Your task to perform on an android device: move a message to another label in the gmail app Image 0: 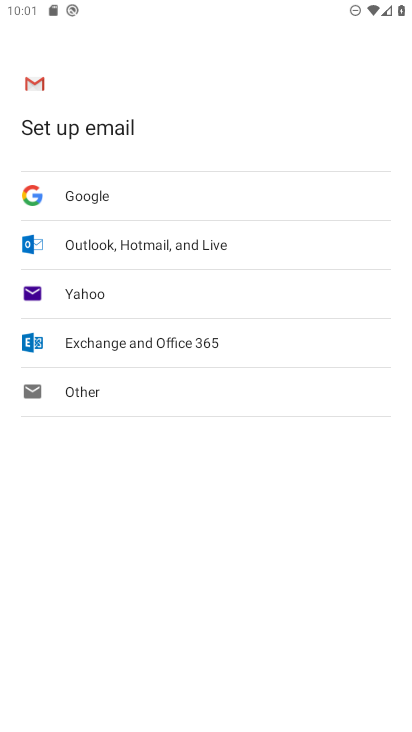
Step 0: press home button
Your task to perform on an android device: move a message to another label in the gmail app Image 1: 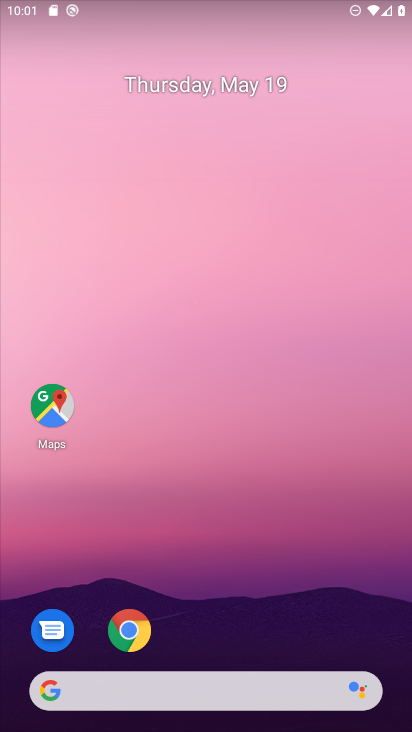
Step 1: drag from (365, 610) to (347, 124)
Your task to perform on an android device: move a message to another label in the gmail app Image 2: 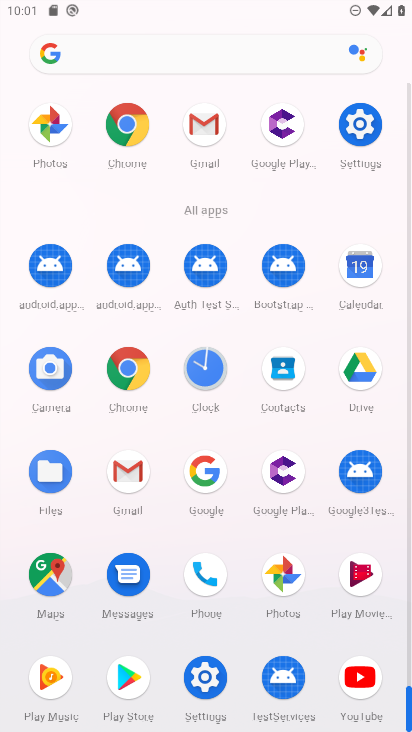
Step 2: click (128, 477)
Your task to perform on an android device: move a message to another label in the gmail app Image 3: 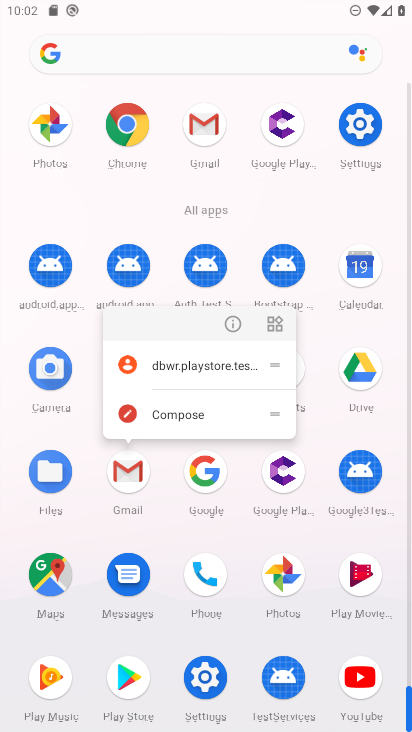
Step 3: click (138, 479)
Your task to perform on an android device: move a message to another label in the gmail app Image 4: 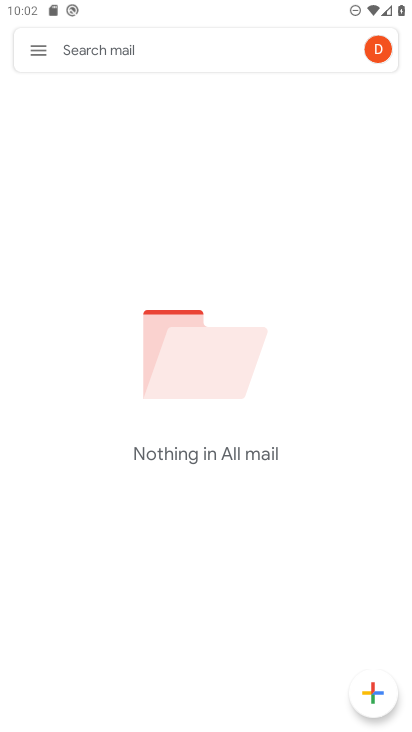
Step 4: click (44, 54)
Your task to perform on an android device: move a message to another label in the gmail app Image 5: 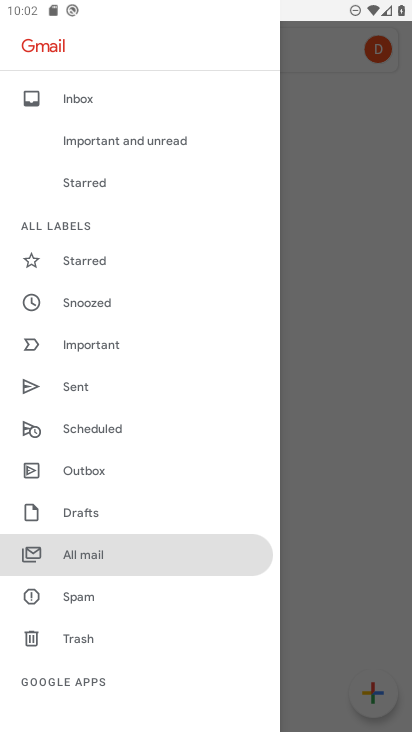
Step 5: task complete